Your task to perform on an android device: show emergency info Image 0: 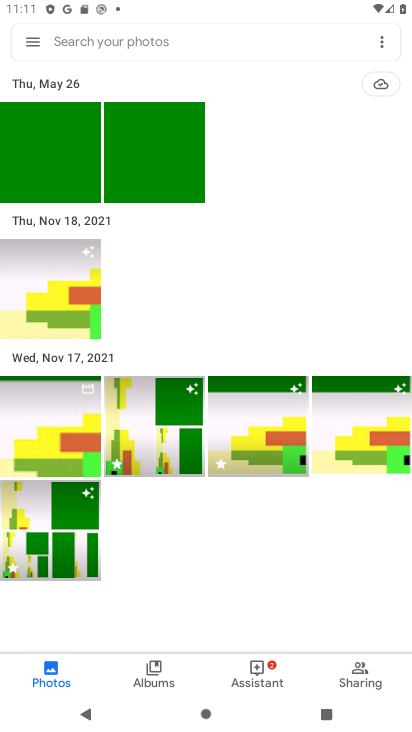
Step 0: press home button
Your task to perform on an android device: show emergency info Image 1: 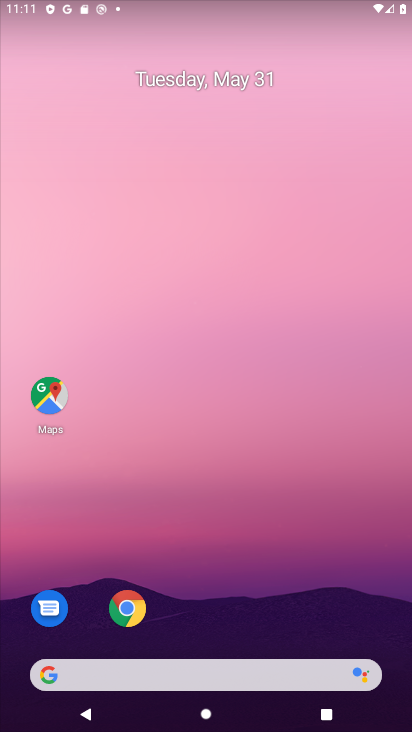
Step 1: drag from (190, 578) to (26, 625)
Your task to perform on an android device: show emergency info Image 2: 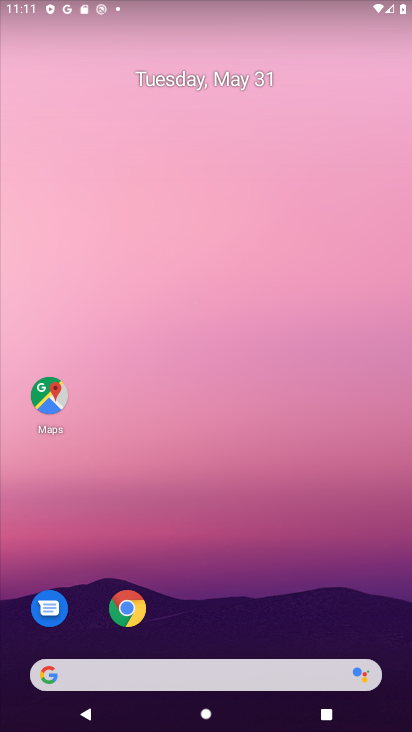
Step 2: drag from (250, 629) to (247, 198)
Your task to perform on an android device: show emergency info Image 3: 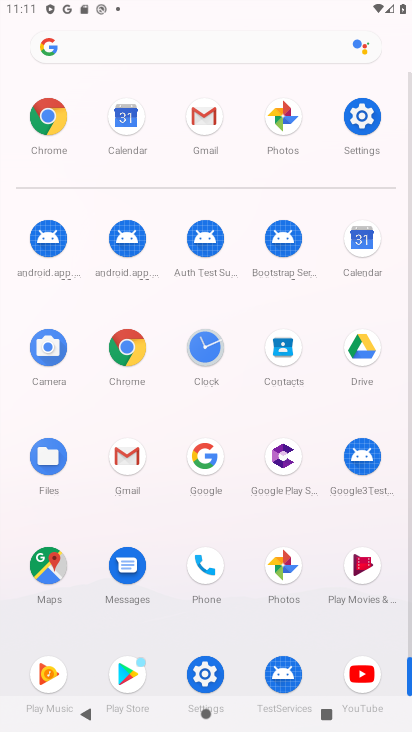
Step 3: click (369, 127)
Your task to perform on an android device: show emergency info Image 4: 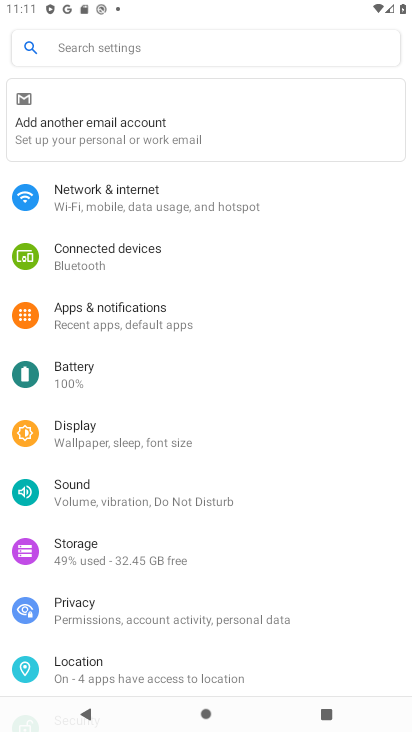
Step 4: drag from (180, 487) to (180, 182)
Your task to perform on an android device: show emergency info Image 5: 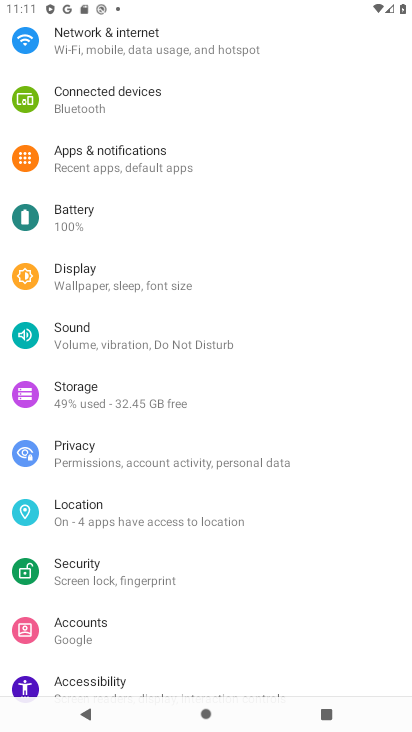
Step 5: drag from (190, 522) to (190, 186)
Your task to perform on an android device: show emergency info Image 6: 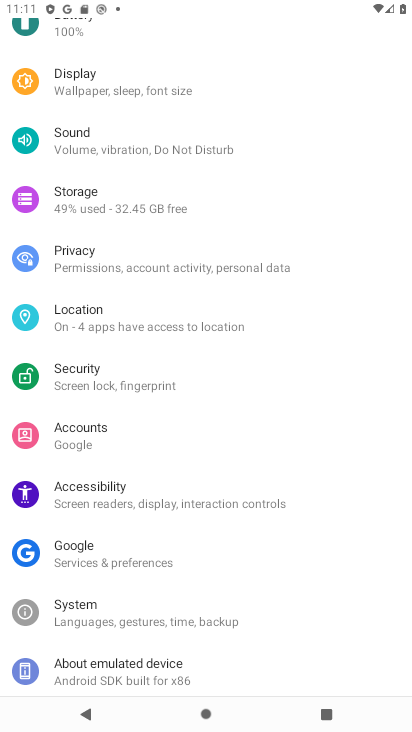
Step 6: drag from (190, 523) to (201, 192)
Your task to perform on an android device: show emergency info Image 7: 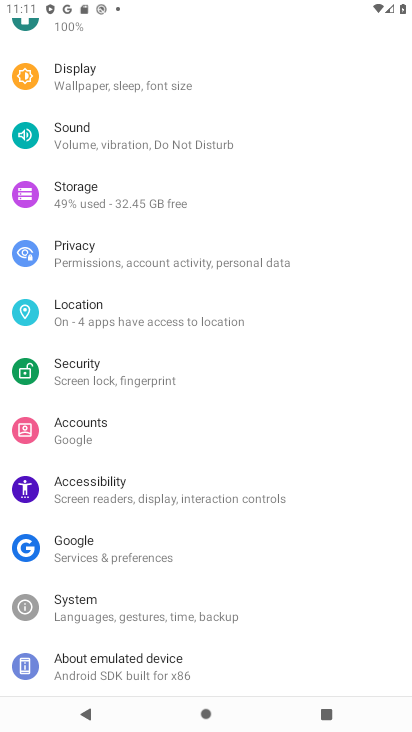
Step 7: click (110, 656)
Your task to perform on an android device: show emergency info Image 8: 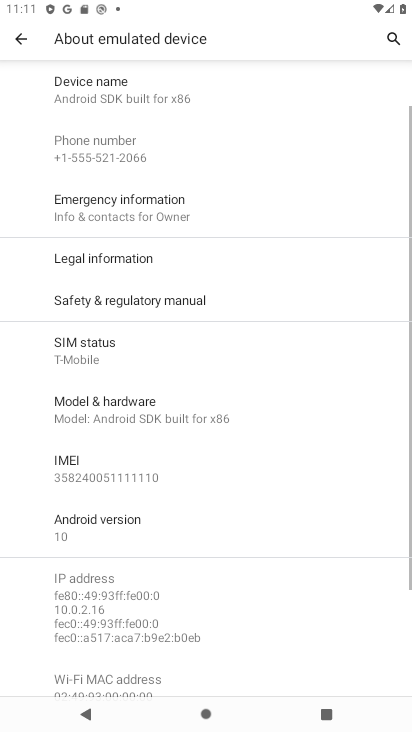
Step 8: click (144, 208)
Your task to perform on an android device: show emergency info Image 9: 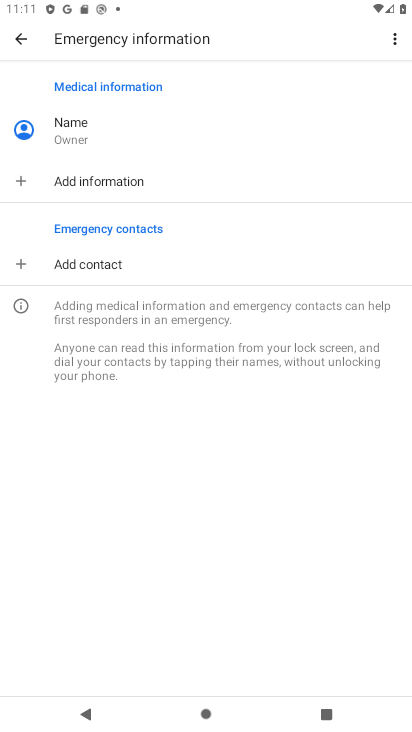
Step 9: task complete